Your task to perform on an android device: add a label to a message in the gmail app Image 0: 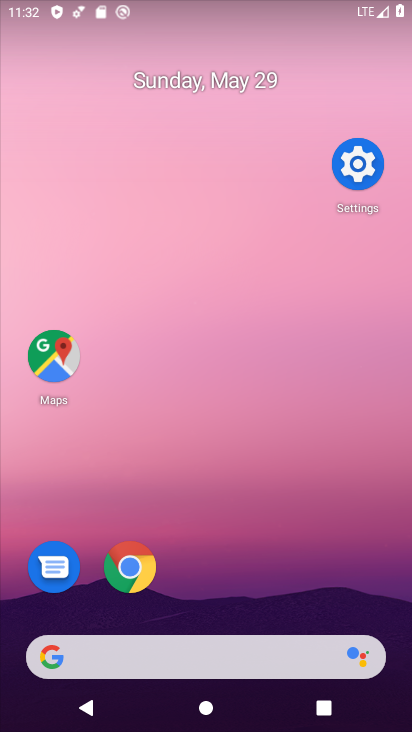
Step 0: drag from (387, 557) to (270, 157)
Your task to perform on an android device: add a label to a message in the gmail app Image 1: 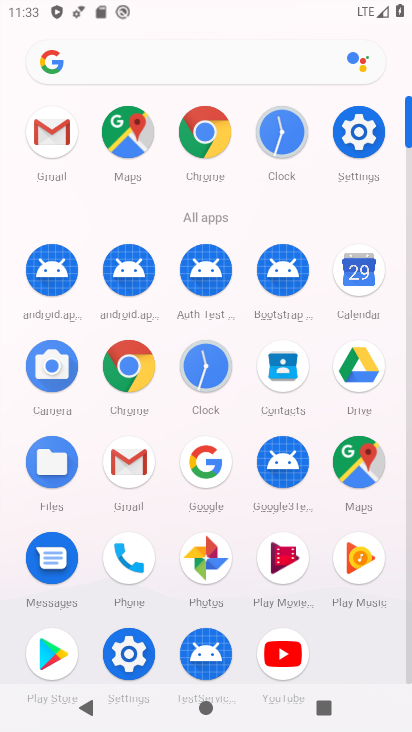
Step 1: click (118, 467)
Your task to perform on an android device: add a label to a message in the gmail app Image 2: 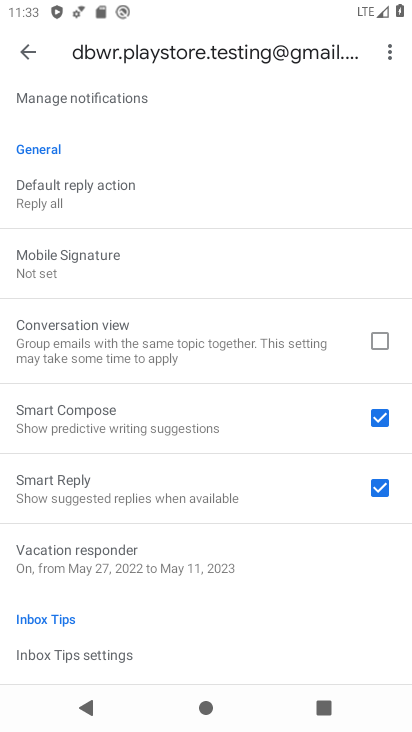
Step 2: click (28, 55)
Your task to perform on an android device: add a label to a message in the gmail app Image 3: 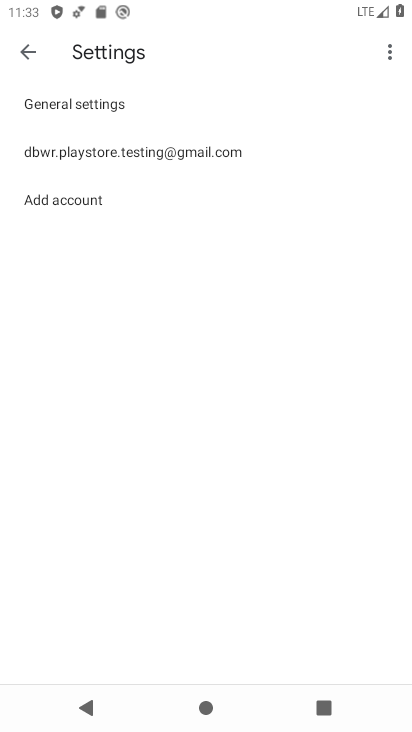
Step 3: click (31, 52)
Your task to perform on an android device: add a label to a message in the gmail app Image 4: 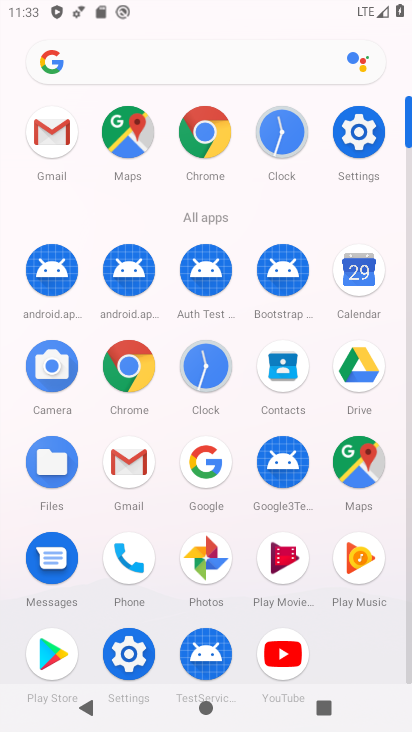
Step 4: click (57, 122)
Your task to perform on an android device: add a label to a message in the gmail app Image 5: 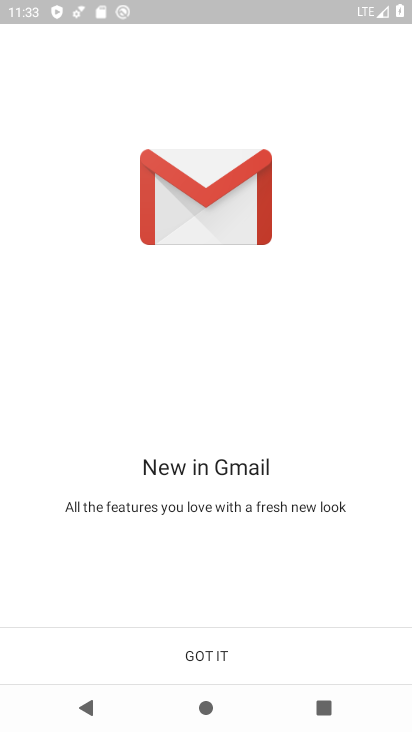
Step 5: click (195, 653)
Your task to perform on an android device: add a label to a message in the gmail app Image 6: 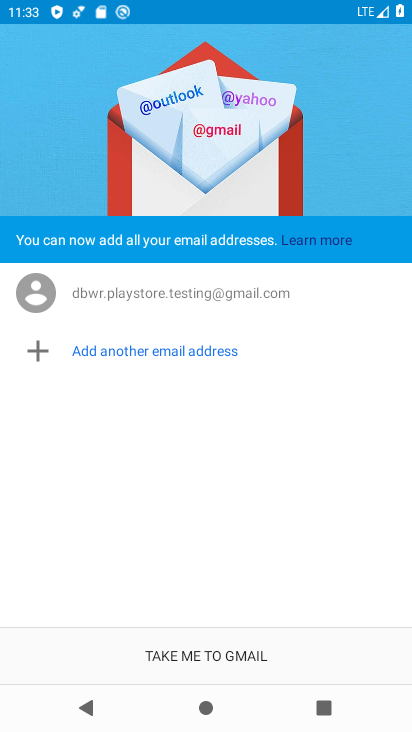
Step 6: click (195, 653)
Your task to perform on an android device: add a label to a message in the gmail app Image 7: 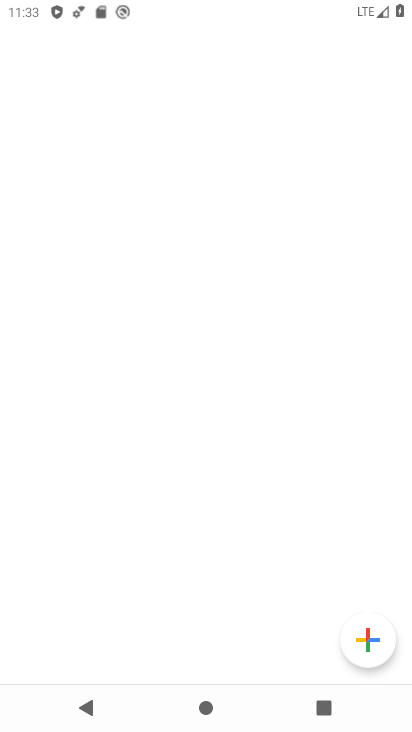
Step 7: click (195, 653)
Your task to perform on an android device: add a label to a message in the gmail app Image 8: 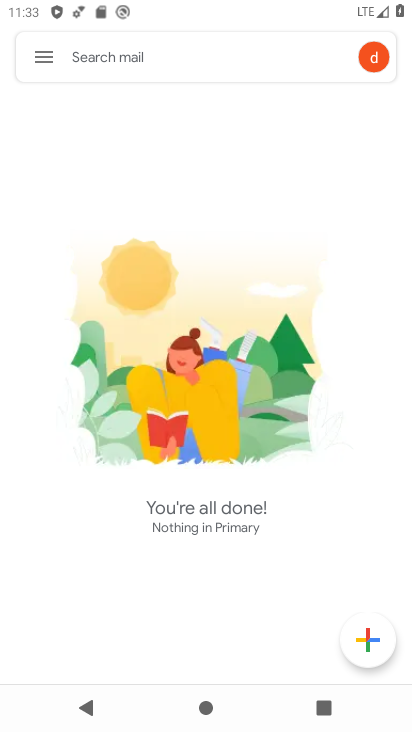
Step 8: click (35, 60)
Your task to perform on an android device: add a label to a message in the gmail app Image 9: 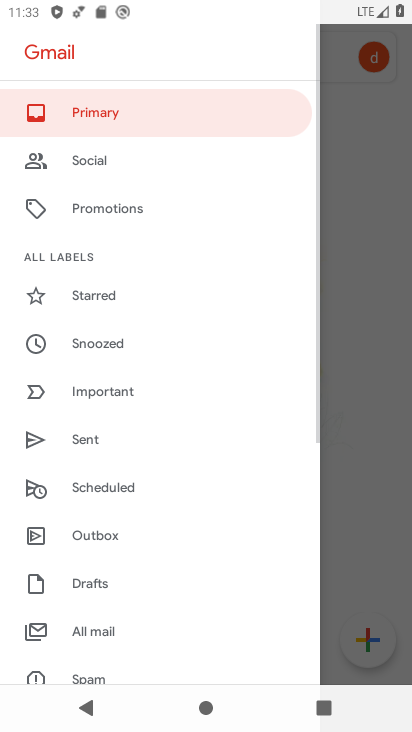
Step 9: click (118, 625)
Your task to perform on an android device: add a label to a message in the gmail app Image 10: 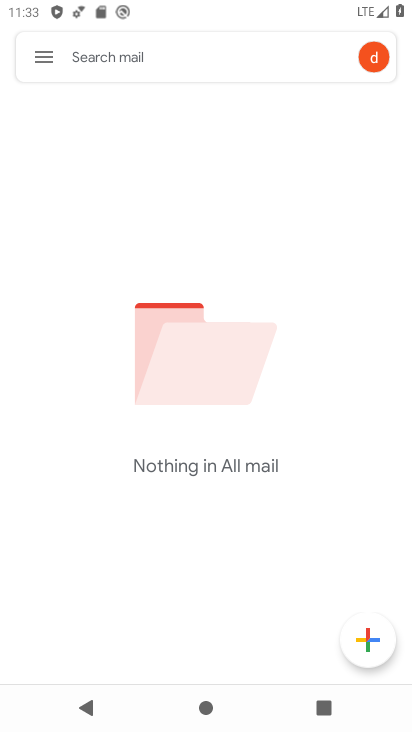
Step 10: task complete